Your task to perform on an android device: Go to Reddit.com Image 0: 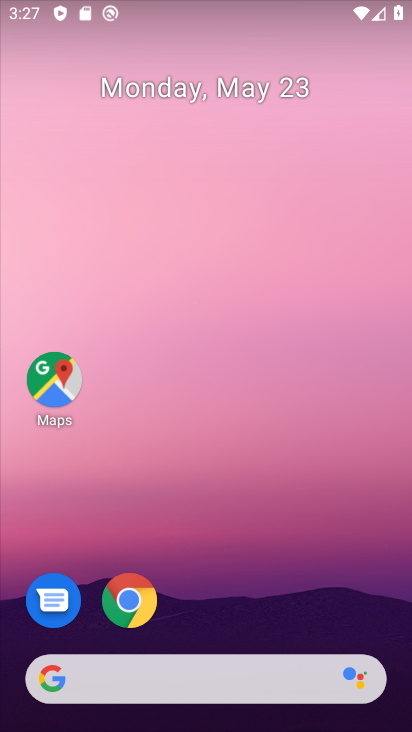
Step 0: click (139, 597)
Your task to perform on an android device: Go to Reddit.com Image 1: 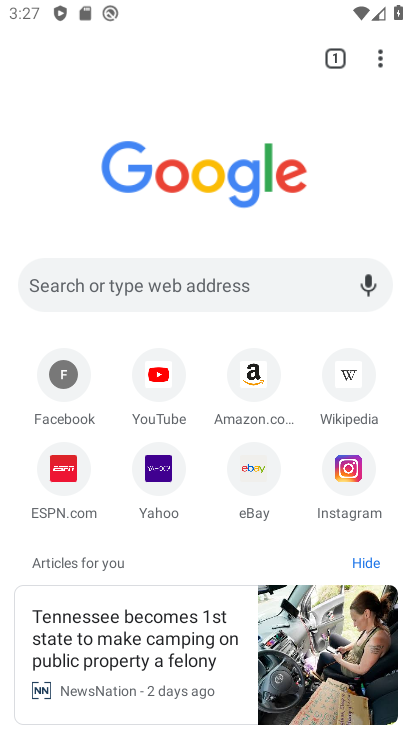
Step 1: click (129, 290)
Your task to perform on an android device: Go to Reddit.com Image 2: 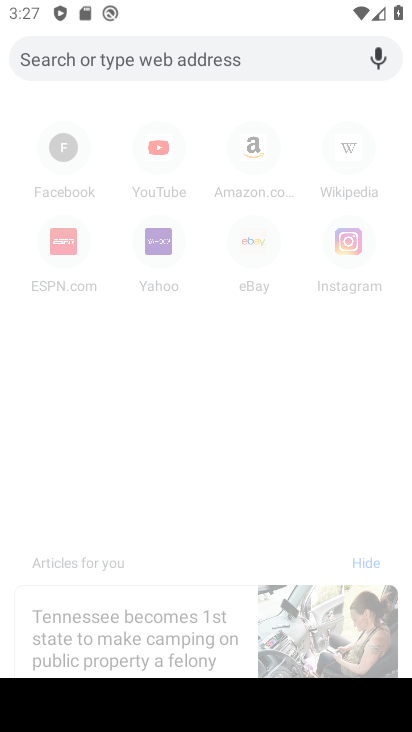
Step 2: type "reddit.com"
Your task to perform on an android device: Go to Reddit.com Image 3: 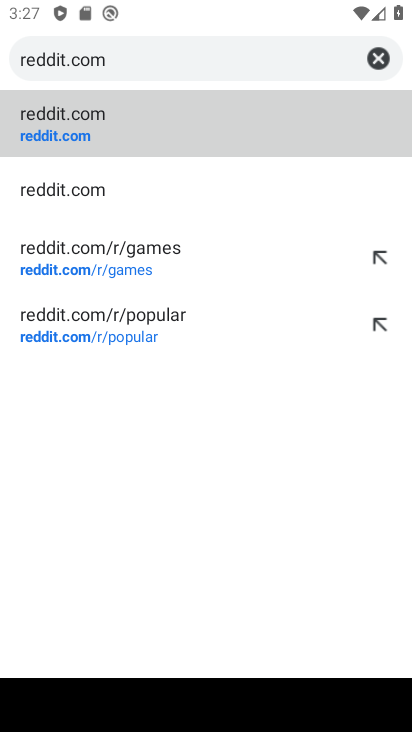
Step 3: click (52, 194)
Your task to perform on an android device: Go to Reddit.com Image 4: 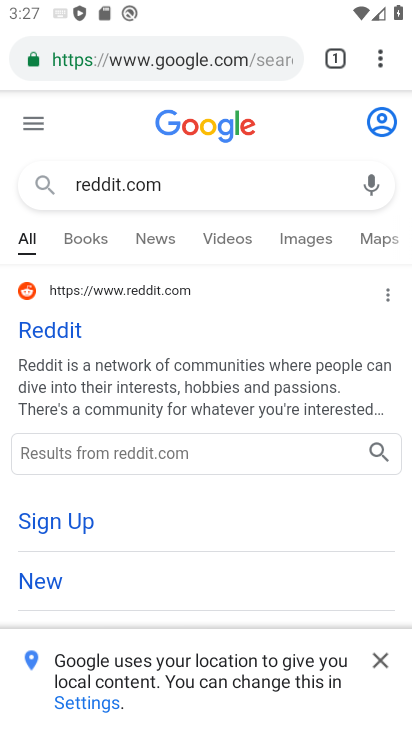
Step 4: click (42, 337)
Your task to perform on an android device: Go to Reddit.com Image 5: 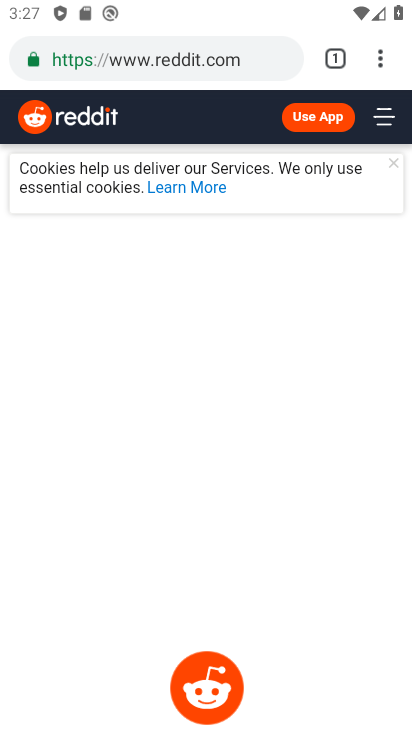
Step 5: task complete